Your task to perform on an android device: turn on notifications settings in the gmail app Image 0: 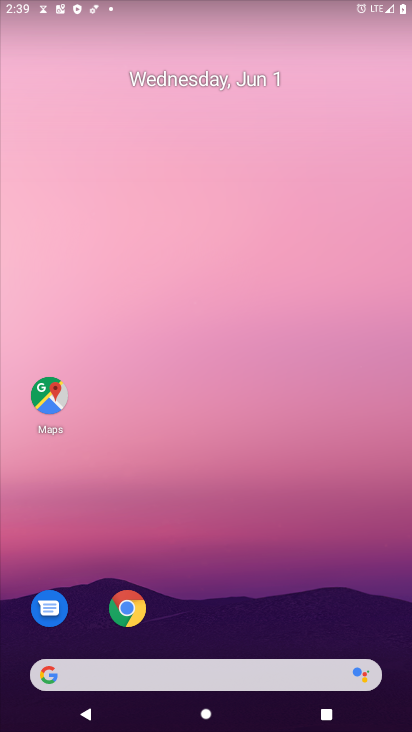
Step 0: drag from (289, 606) to (328, 67)
Your task to perform on an android device: turn on notifications settings in the gmail app Image 1: 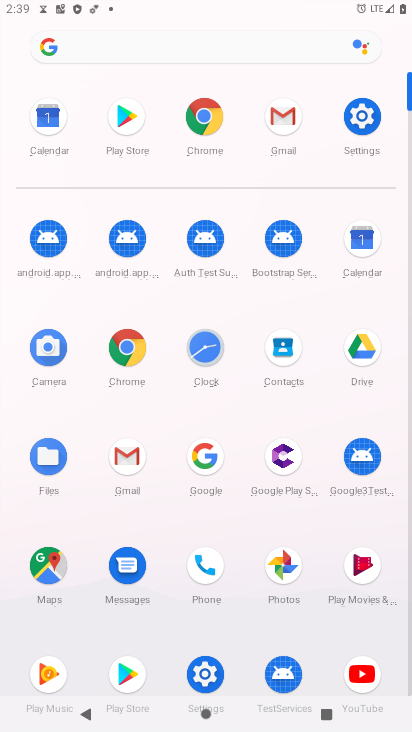
Step 1: click (358, 109)
Your task to perform on an android device: turn on notifications settings in the gmail app Image 2: 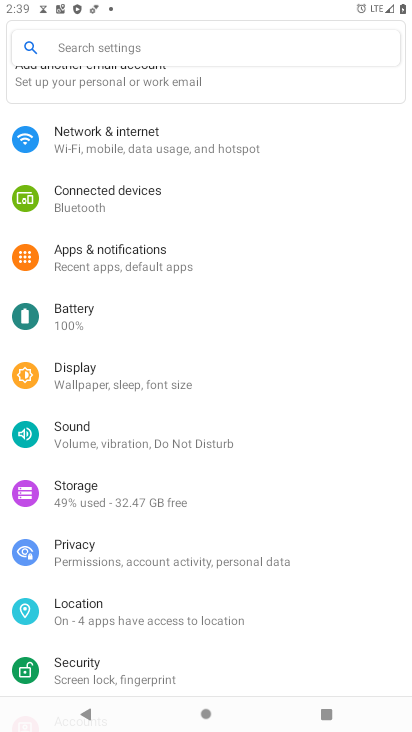
Step 2: click (109, 268)
Your task to perform on an android device: turn on notifications settings in the gmail app Image 3: 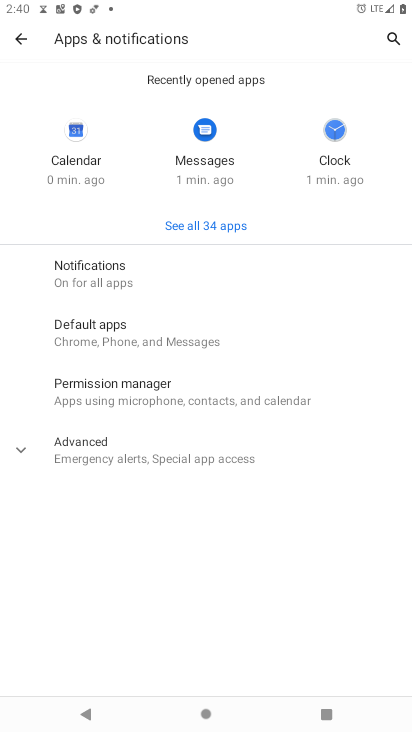
Step 3: click (203, 260)
Your task to perform on an android device: turn on notifications settings in the gmail app Image 4: 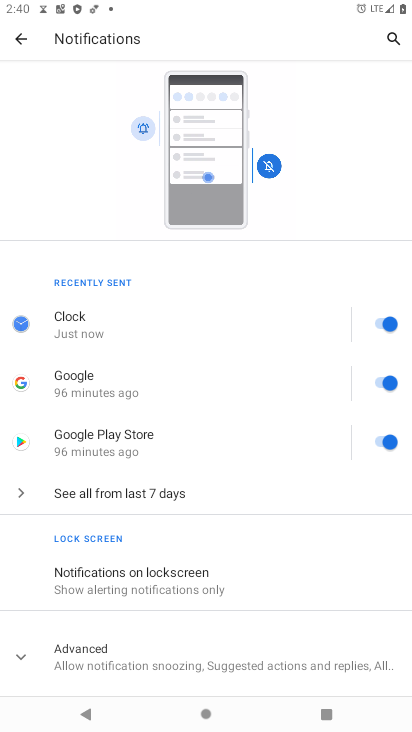
Step 4: drag from (154, 656) to (248, 308)
Your task to perform on an android device: turn on notifications settings in the gmail app Image 5: 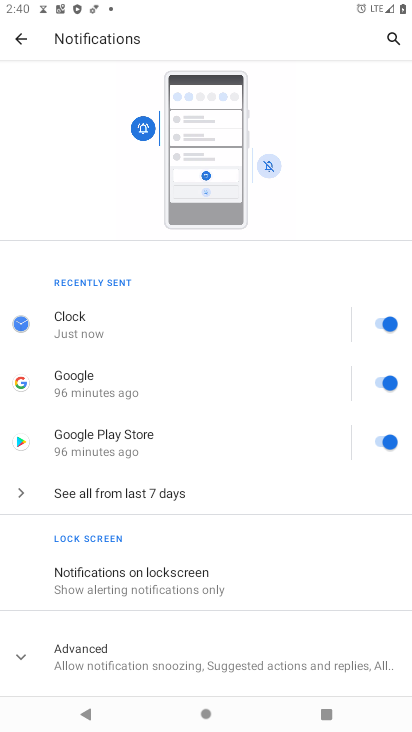
Step 5: click (213, 581)
Your task to perform on an android device: turn on notifications settings in the gmail app Image 6: 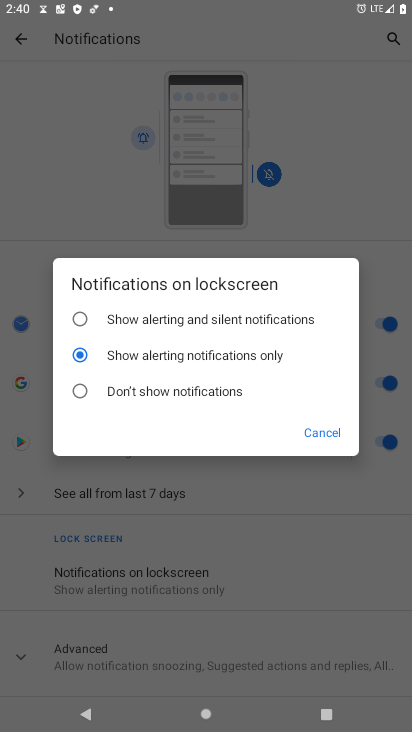
Step 6: click (302, 431)
Your task to perform on an android device: turn on notifications settings in the gmail app Image 7: 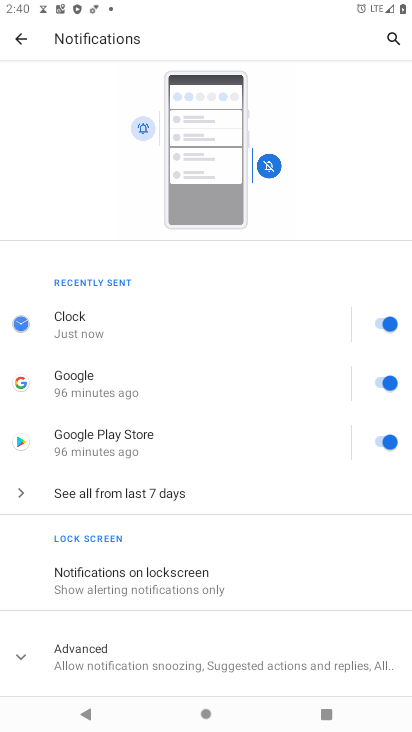
Step 7: task complete